Your task to perform on an android device: Go to Google Image 0: 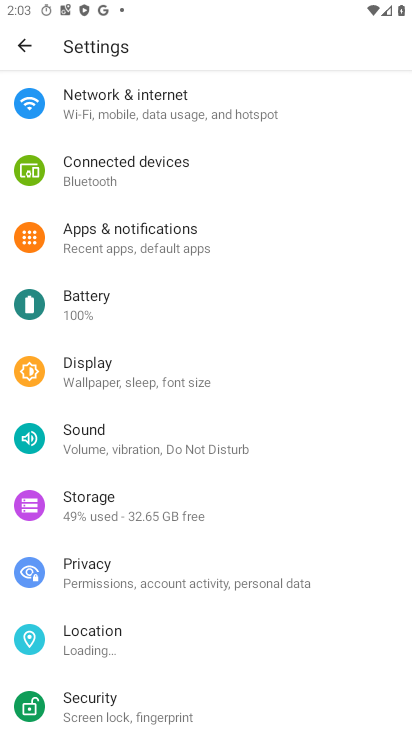
Step 0: press home button
Your task to perform on an android device: Go to Google Image 1: 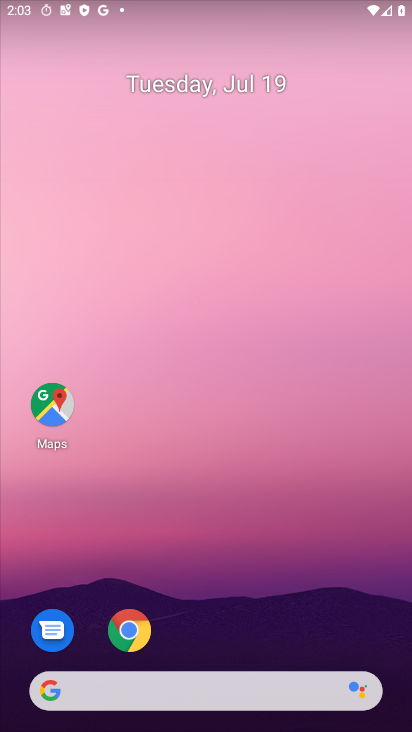
Step 1: drag from (287, 624) to (330, 63)
Your task to perform on an android device: Go to Google Image 2: 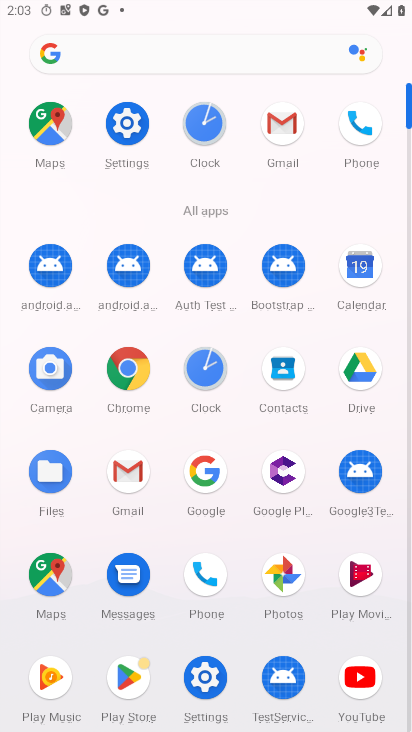
Step 2: click (210, 487)
Your task to perform on an android device: Go to Google Image 3: 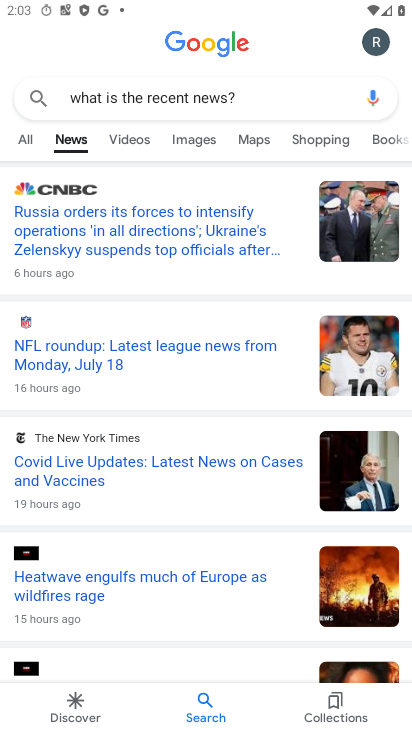
Step 3: task complete